Your task to perform on an android device: toggle improve location accuracy Image 0: 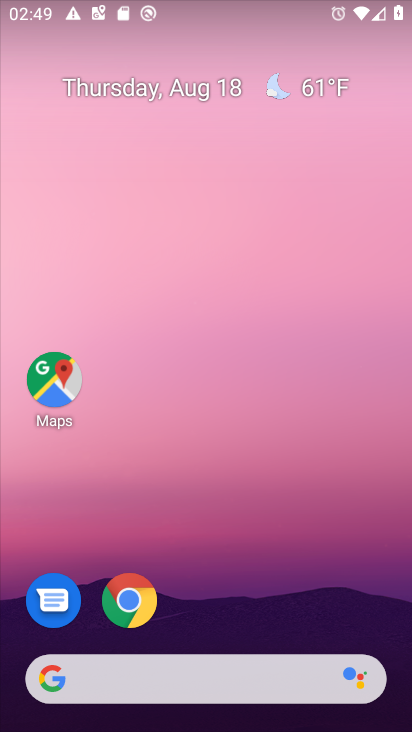
Step 0: press home button
Your task to perform on an android device: toggle improve location accuracy Image 1: 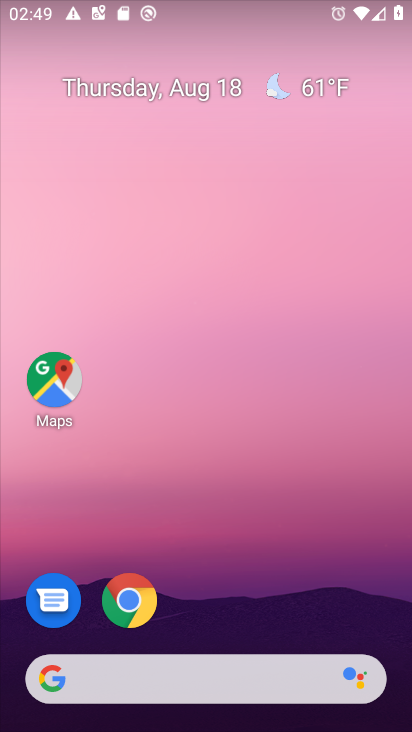
Step 1: drag from (231, 623) to (220, 5)
Your task to perform on an android device: toggle improve location accuracy Image 2: 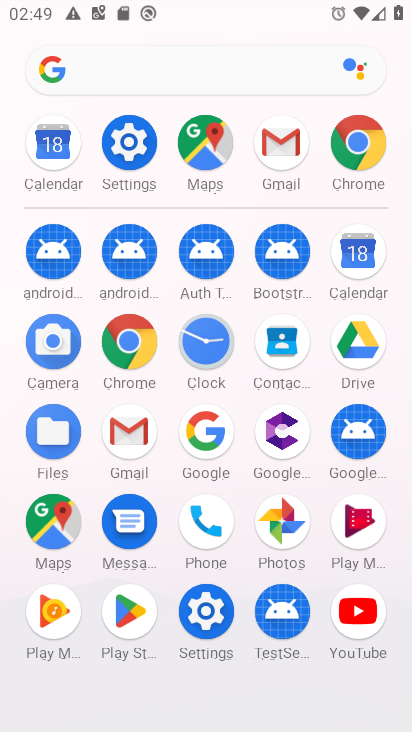
Step 2: click (123, 151)
Your task to perform on an android device: toggle improve location accuracy Image 3: 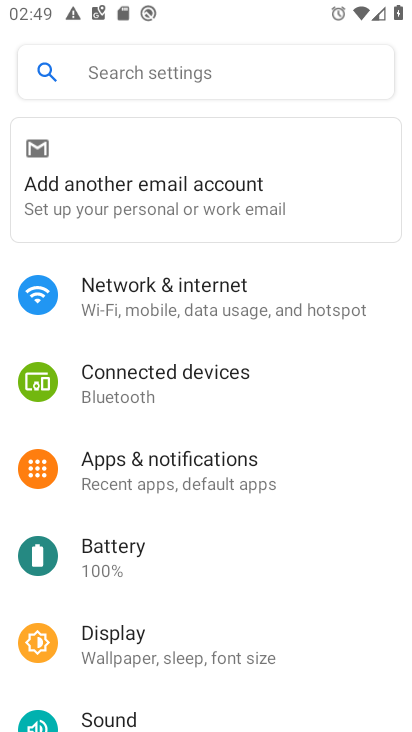
Step 3: drag from (319, 652) to (271, 95)
Your task to perform on an android device: toggle improve location accuracy Image 4: 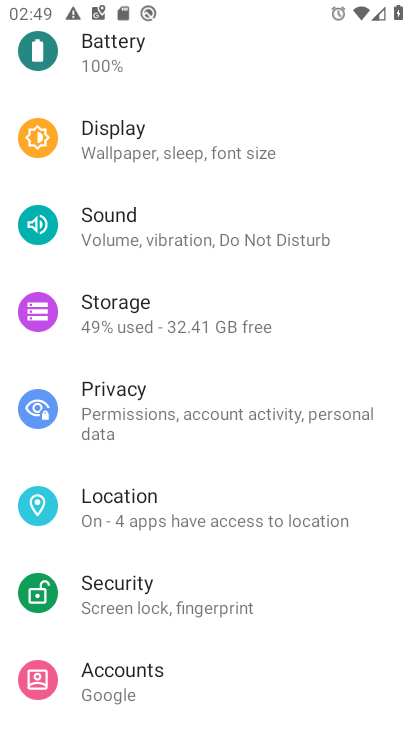
Step 4: click (126, 507)
Your task to perform on an android device: toggle improve location accuracy Image 5: 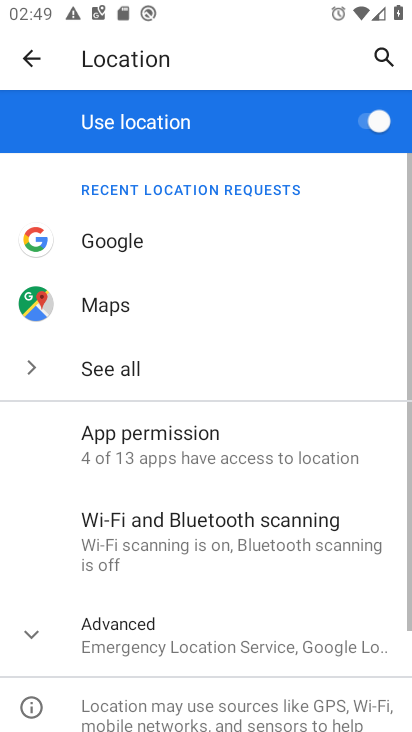
Step 5: click (117, 633)
Your task to perform on an android device: toggle improve location accuracy Image 6: 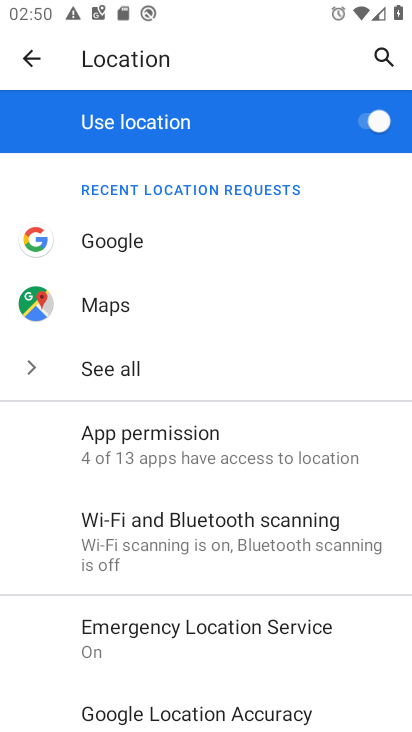
Step 6: drag from (329, 675) to (259, 362)
Your task to perform on an android device: toggle improve location accuracy Image 7: 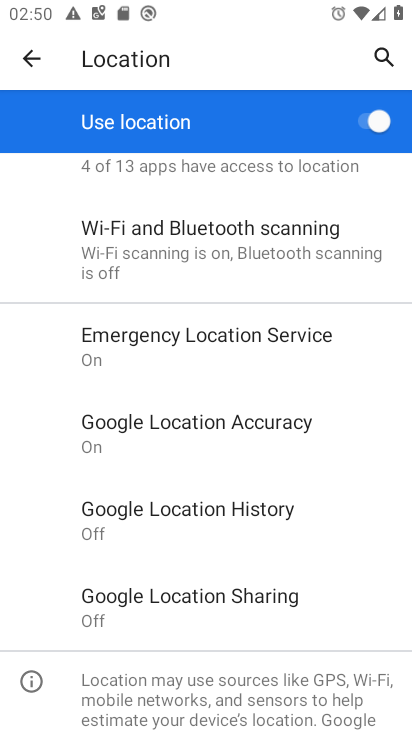
Step 7: click (230, 435)
Your task to perform on an android device: toggle improve location accuracy Image 8: 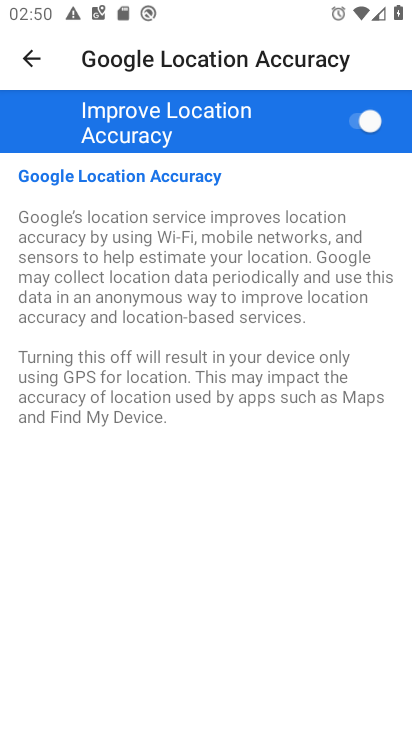
Step 8: click (373, 126)
Your task to perform on an android device: toggle improve location accuracy Image 9: 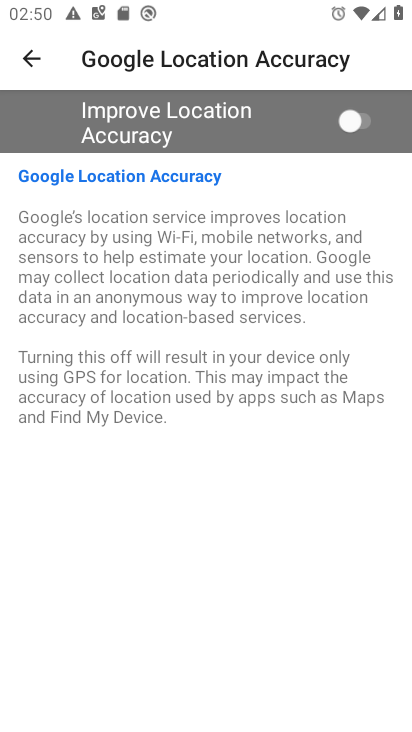
Step 9: task complete